Your task to perform on an android device: search for starred emails in the gmail app Image 0: 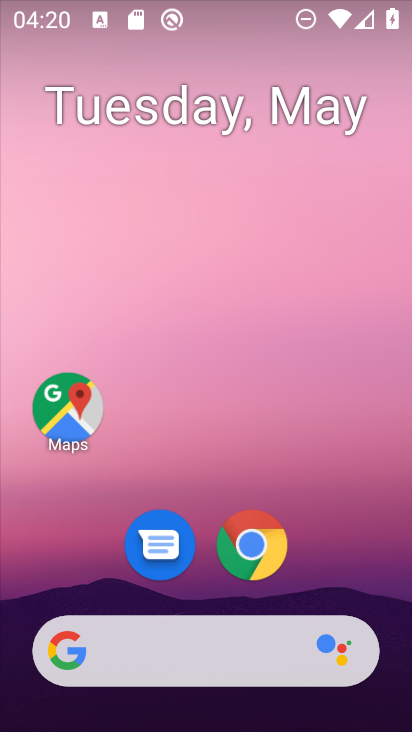
Step 0: drag from (384, 616) to (339, 61)
Your task to perform on an android device: search for starred emails in the gmail app Image 1: 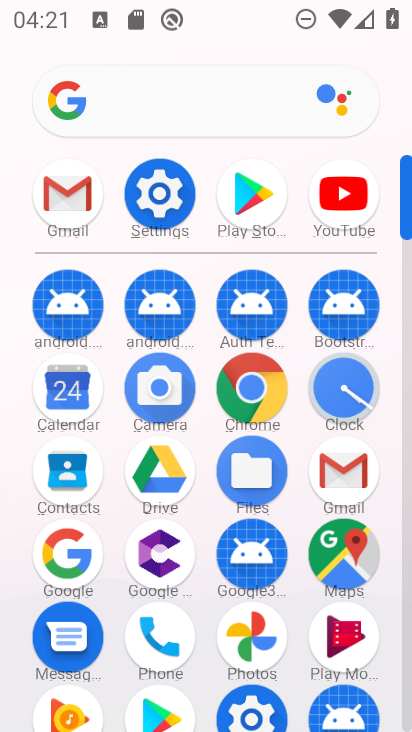
Step 1: click (411, 706)
Your task to perform on an android device: search for starred emails in the gmail app Image 2: 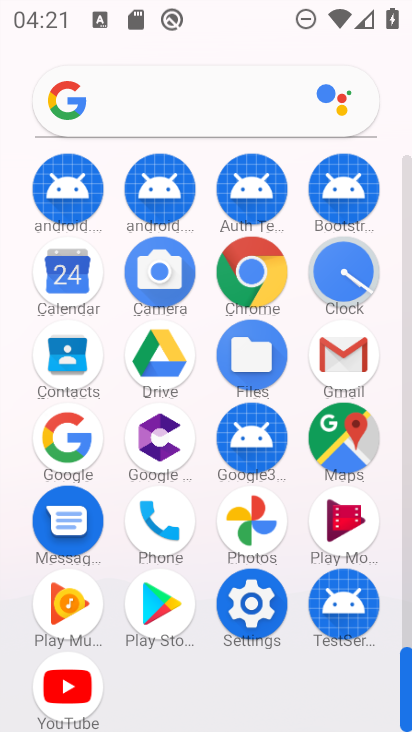
Step 2: click (347, 351)
Your task to perform on an android device: search for starred emails in the gmail app Image 3: 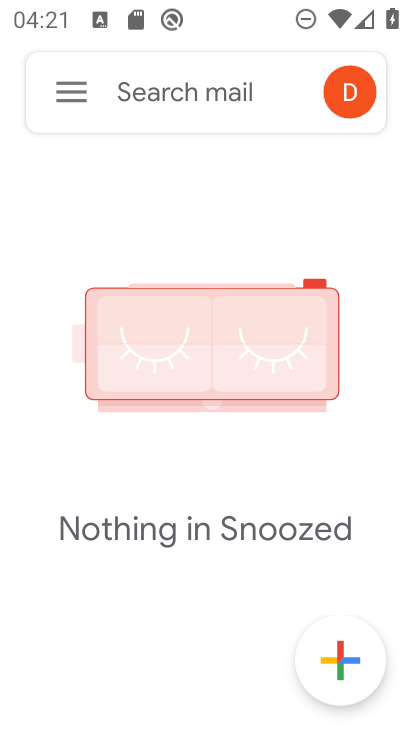
Step 3: click (69, 93)
Your task to perform on an android device: search for starred emails in the gmail app Image 4: 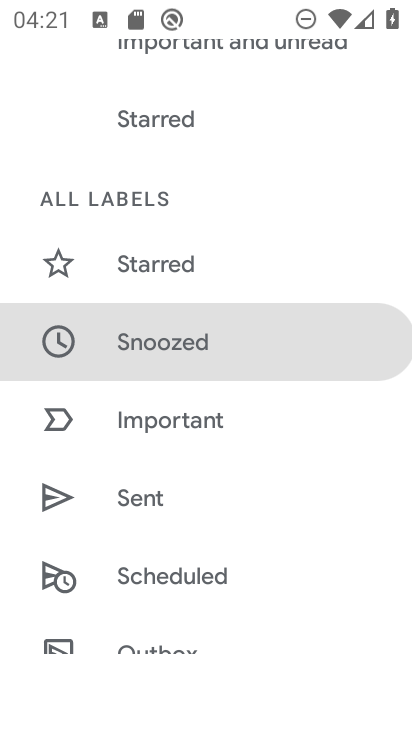
Step 4: click (153, 261)
Your task to perform on an android device: search for starred emails in the gmail app Image 5: 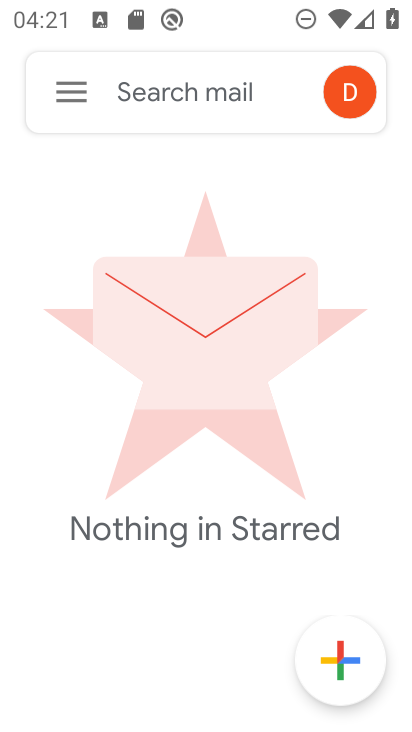
Step 5: task complete